Your task to perform on an android device: Go to battery settings Image 0: 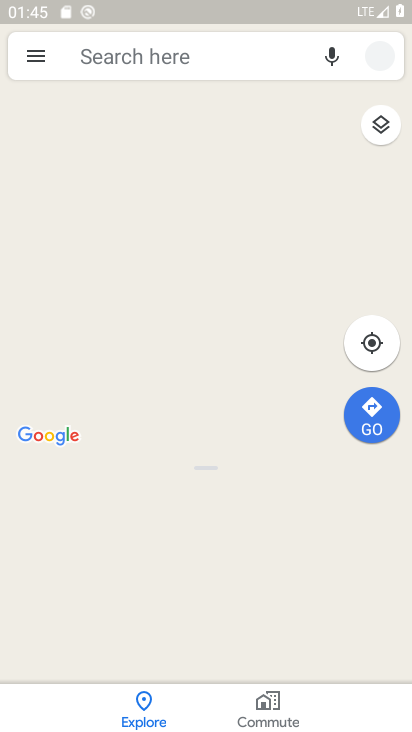
Step 0: press home button
Your task to perform on an android device: Go to battery settings Image 1: 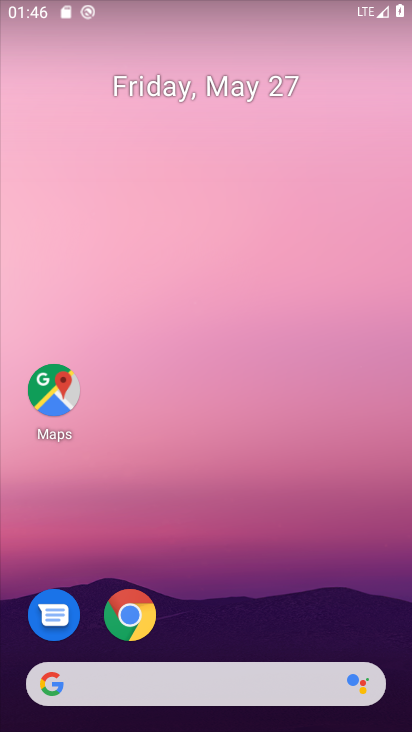
Step 1: drag from (353, 479) to (360, 140)
Your task to perform on an android device: Go to battery settings Image 2: 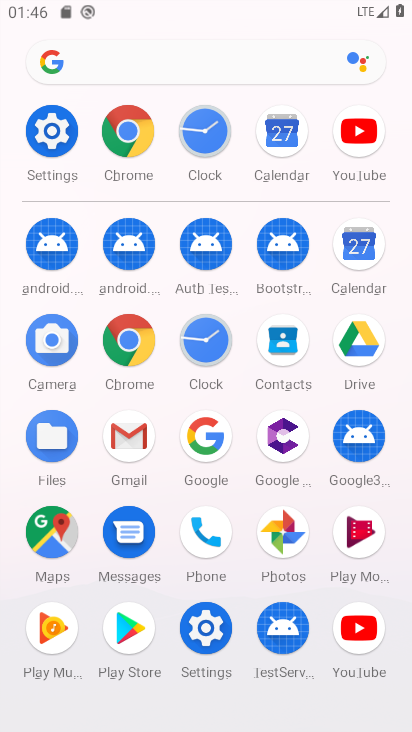
Step 2: click (55, 134)
Your task to perform on an android device: Go to battery settings Image 3: 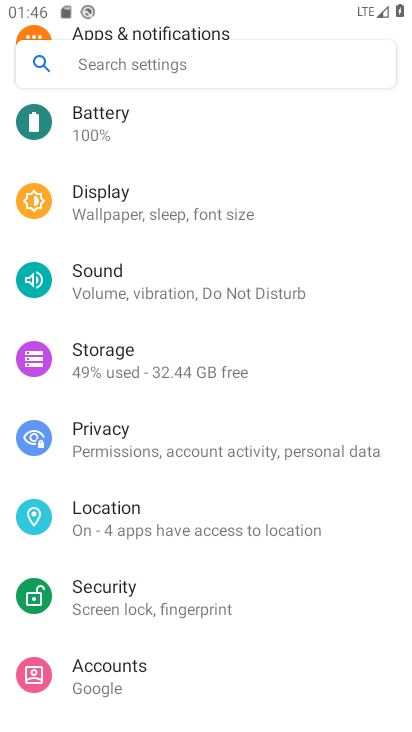
Step 3: drag from (220, 158) to (255, 337)
Your task to perform on an android device: Go to battery settings Image 4: 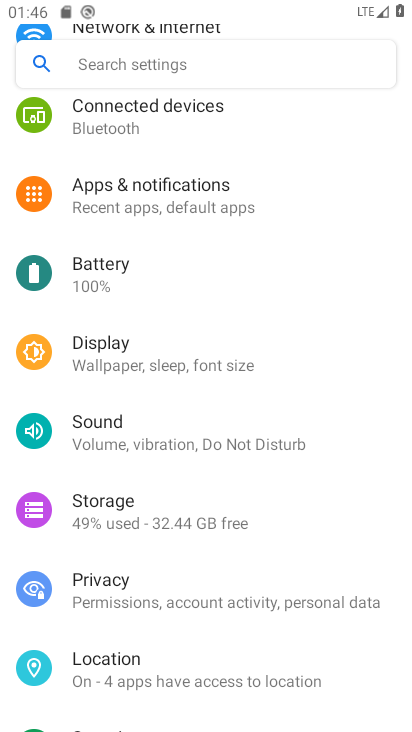
Step 4: drag from (308, 201) to (327, 364)
Your task to perform on an android device: Go to battery settings Image 5: 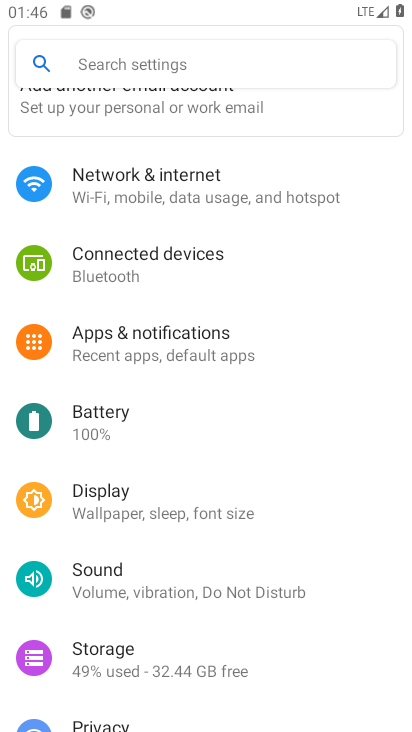
Step 5: drag from (331, 262) to (327, 444)
Your task to perform on an android device: Go to battery settings Image 6: 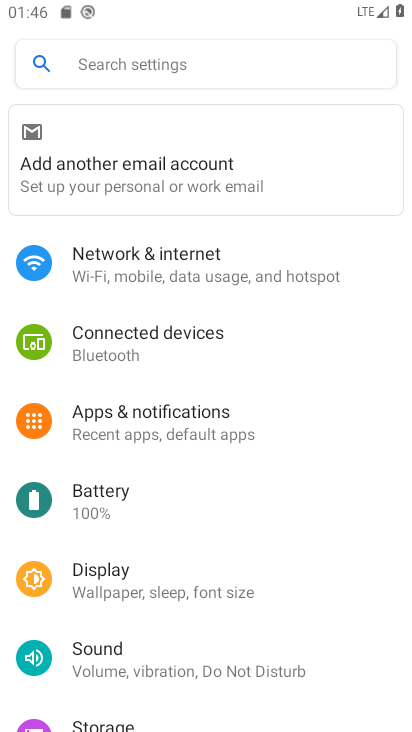
Step 6: drag from (336, 452) to (356, 321)
Your task to perform on an android device: Go to battery settings Image 7: 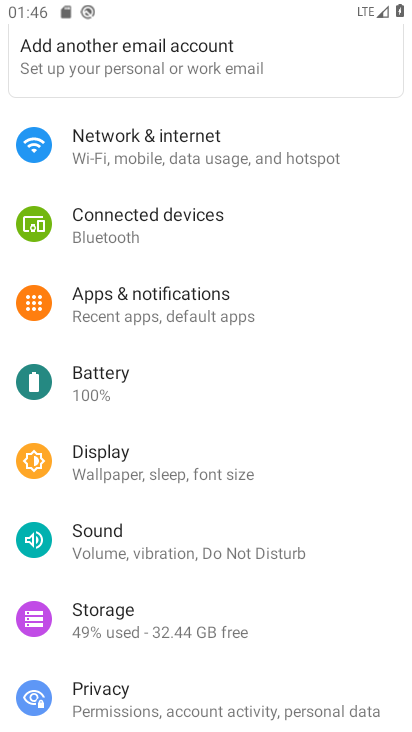
Step 7: drag from (354, 494) to (353, 375)
Your task to perform on an android device: Go to battery settings Image 8: 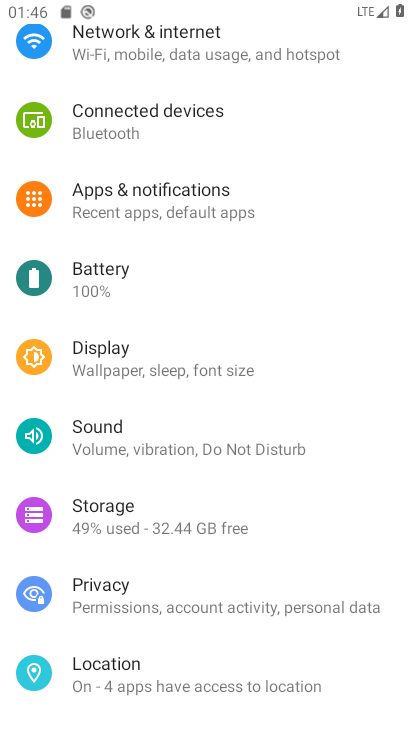
Step 8: drag from (357, 496) to (362, 405)
Your task to perform on an android device: Go to battery settings Image 9: 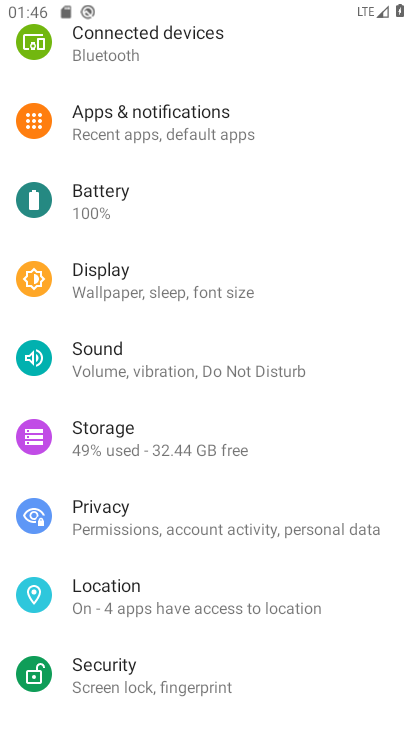
Step 9: drag from (366, 495) to (366, 406)
Your task to perform on an android device: Go to battery settings Image 10: 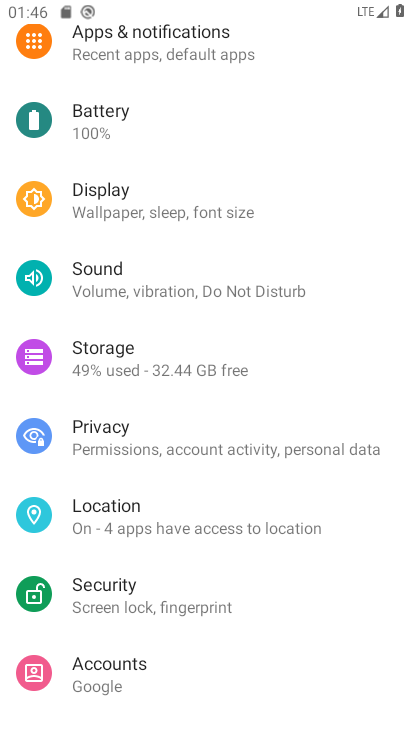
Step 10: drag from (356, 476) to (361, 410)
Your task to perform on an android device: Go to battery settings Image 11: 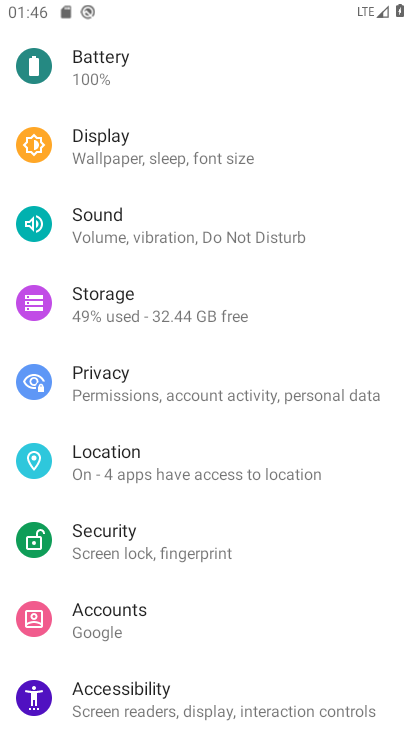
Step 11: drag from (369, 482) to (368, 403)
Your task to perform on an android device: Go to battery settings Image 12: 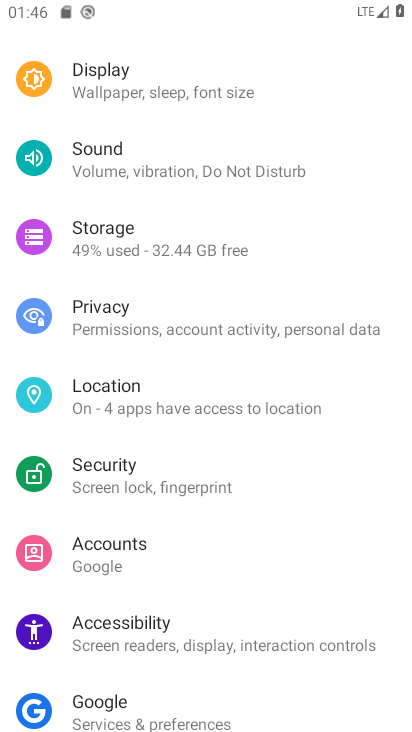
Step 12: drag from (351, 260) to (338, 405)
Your task to perform on an android device: Go to battery settings Image 13: 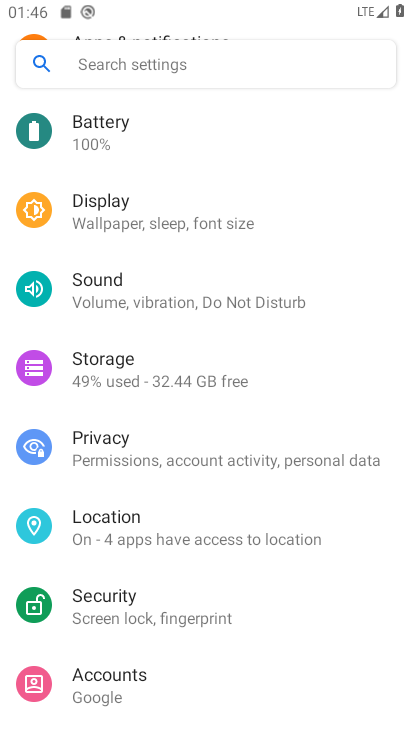
Step 13: drag from (347, 214) to (338, 360)
Your task to perform on an android device: Go to battery settings Image 14: 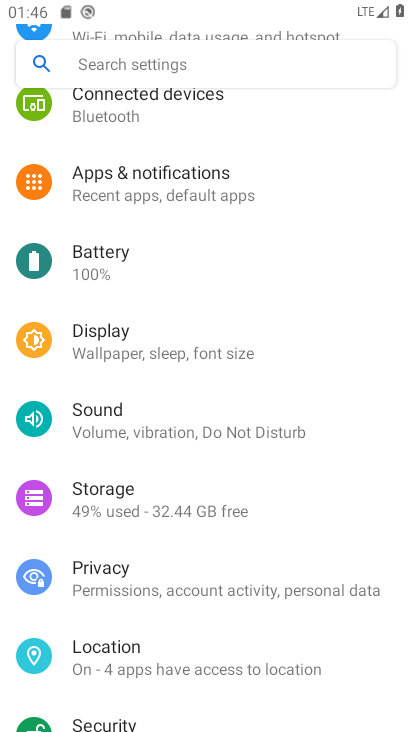
Step 14: click (116, 258)
Your task to perform on an android device: Go to battery settings Image 15: 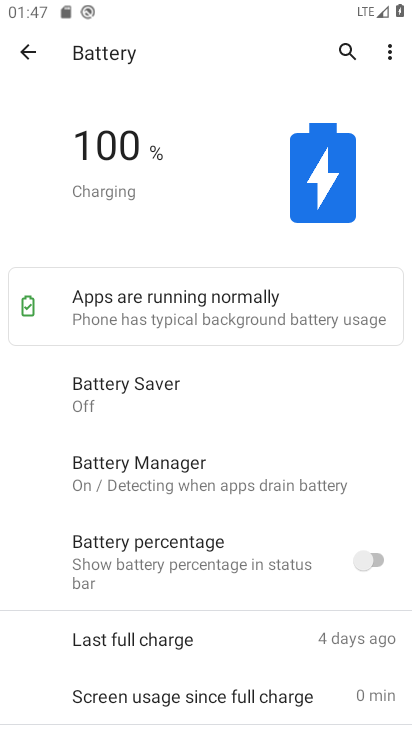
Step 15: task complete